Your task to perform on an android device: open the mobile data screen to see how much data has been used Image 0: 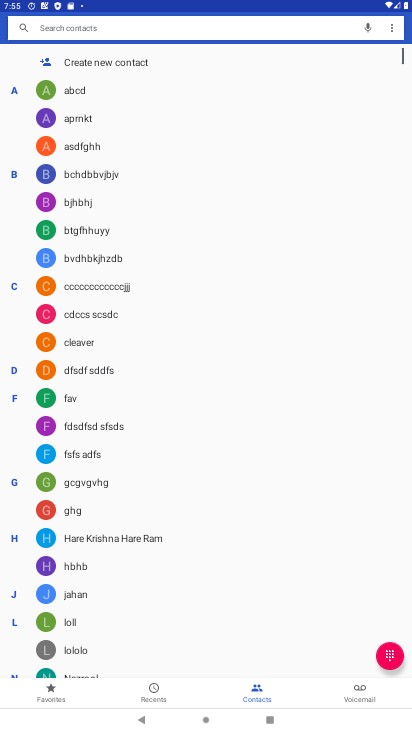
Step 0: press home button
Your task to perform on an android device: open the mobile data screen to see how much data has been used Image 1: 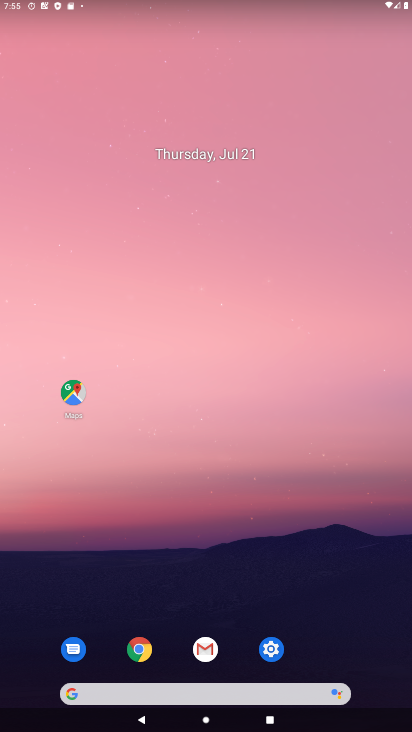
Step 1: click (285, 655)
Your task to perform on an android device: open the mobile data screen to see how much data has been used Image 2: 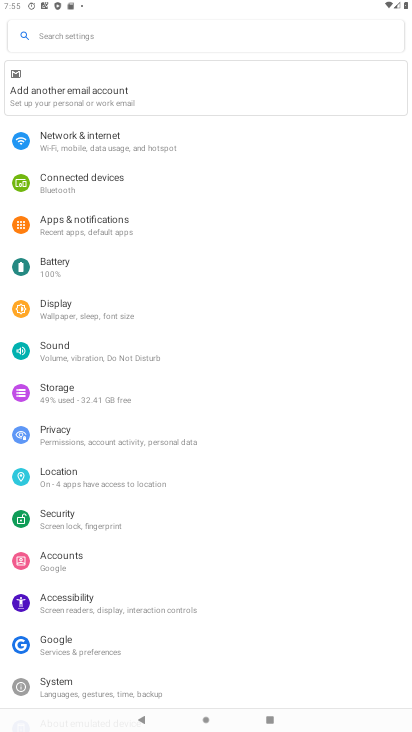
Step 2: click (88, 39)
Your task to perform on an android device: open the mobile data screen to see how much data has been used Image 3: 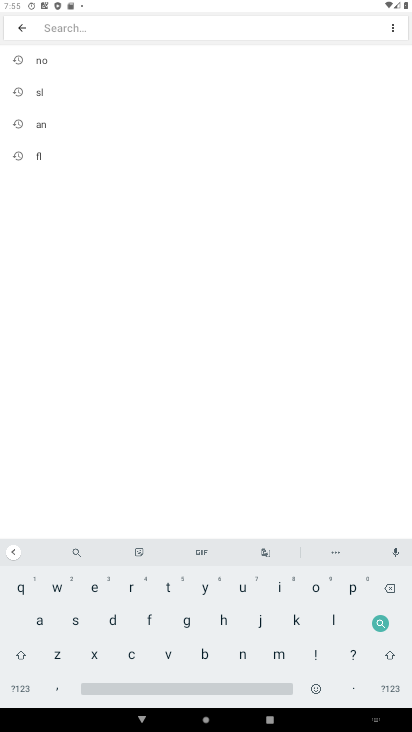
Step 3: click (113, 615)
Your task to perform on an android device: open the mobile data screen to see how much data has been used Image 4: 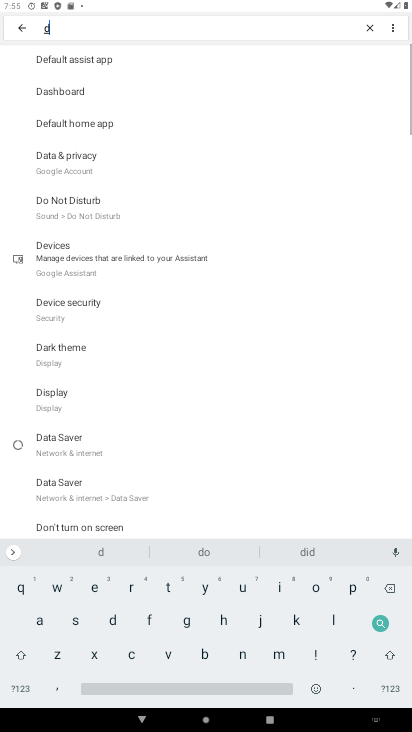
Step 4: click (33, 629)
Your task to perform on an android device: open the mobile data screen to see how much data has been used Image 5: 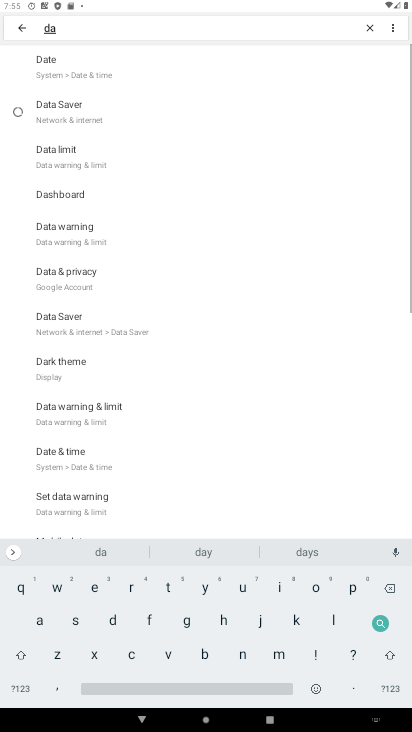
Step 5: click (160, 593)
Your task to perform on an android device: open the mobile data screen to see how much data has been used Image 6: 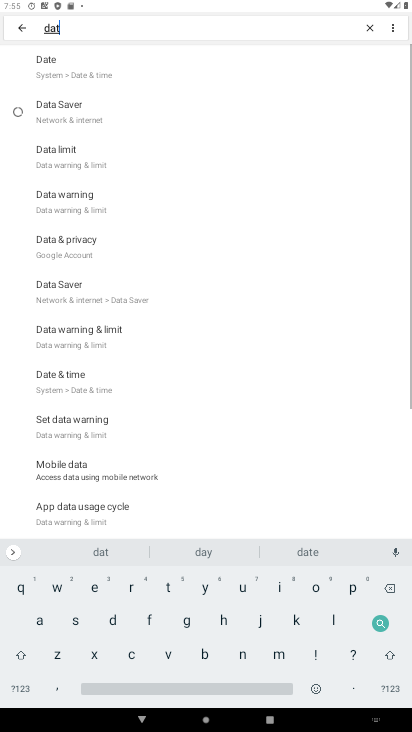
Step 6: click (36, 622)
Your task to perform on an android device: open the mobile data screen to see how much data has been used Image 7: 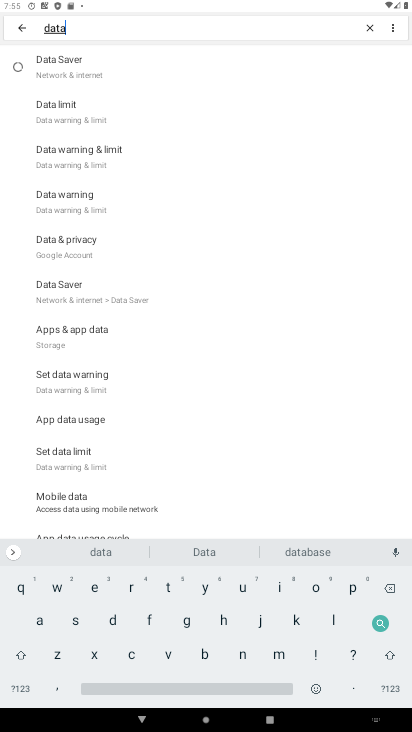
Step 7: click (175, 687)
Your task to perform on an android device: open the mobile data screen to see how much data has been used Image 8: 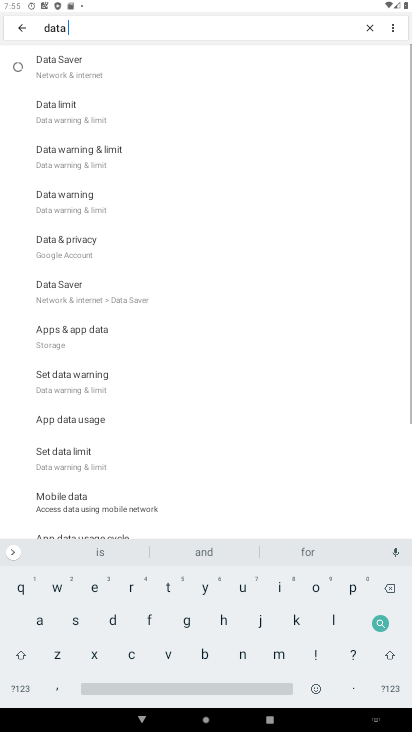
Step 8: click (236, 589)
Your task to perform on an android device: open the mobile data screen to see how much data has been used Image 9: 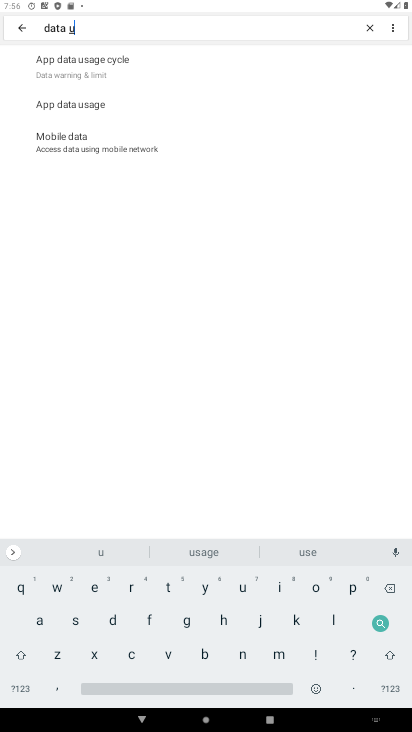
Step 9: click (51, 115)
Your task to perform on an android device: open the mobile data screen to see how much data has been used Image 10: 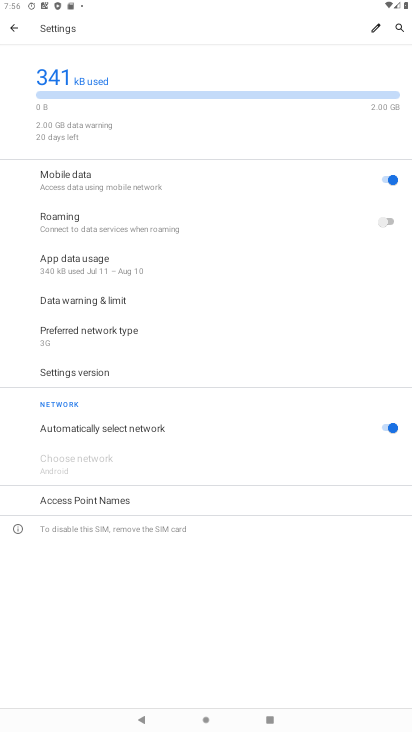
Step 10: click (124, 261)
Your task to perform on an android device: open the mobile data screen to see how much data has been used Image 11: 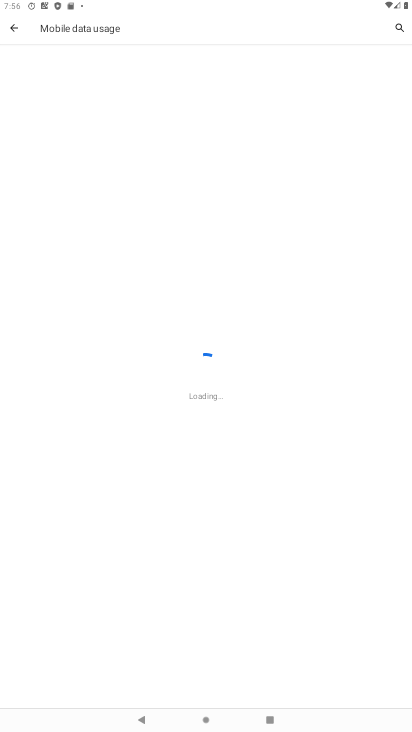
Step 11: task complete